Your task to perform on an android device: turn pop-ups off in chrome Image 0: 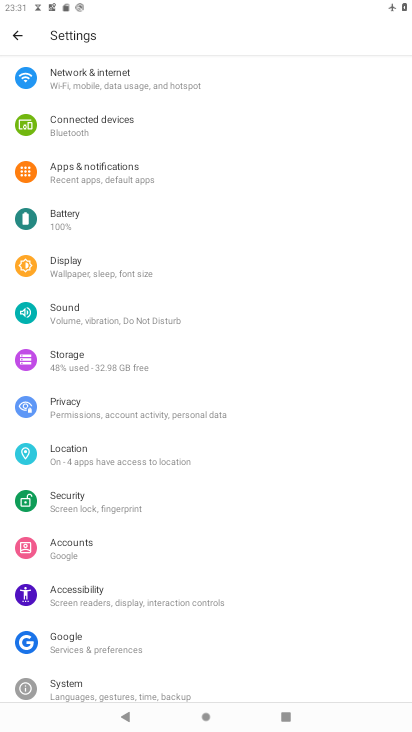
Step 0: press home button
Your task to perform on an android device: turn pop-ups off in chrome Image 1: 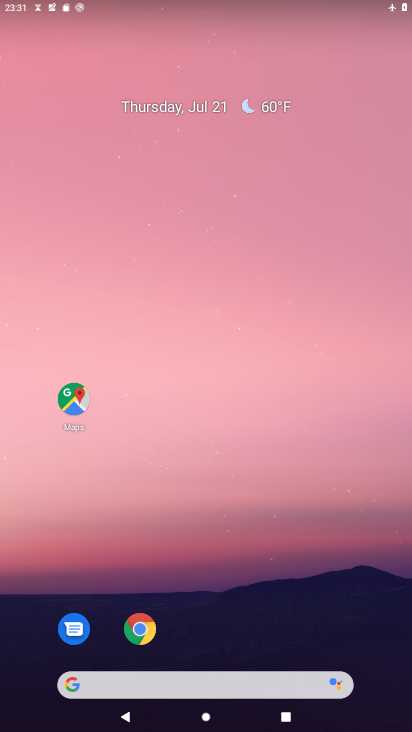
Step 1: drag from (193, 609) to (210, 96)
Your task to perform on an android device: turn pop-ups off in chrome Image 2: 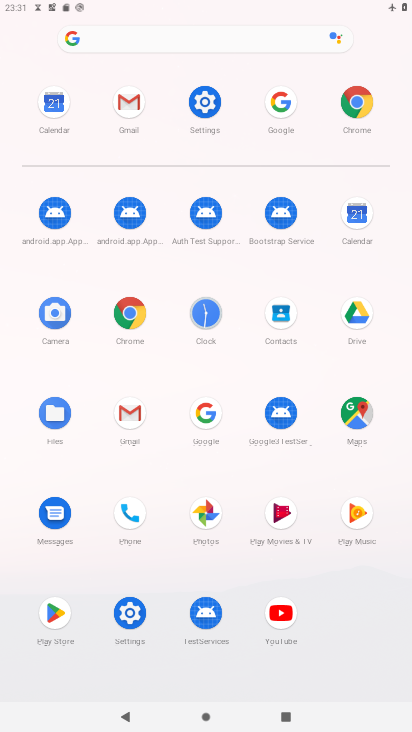
Step 2: click (355, 112)
Your task to perform on an android device: turn pop-ups off in chrome Image 3: 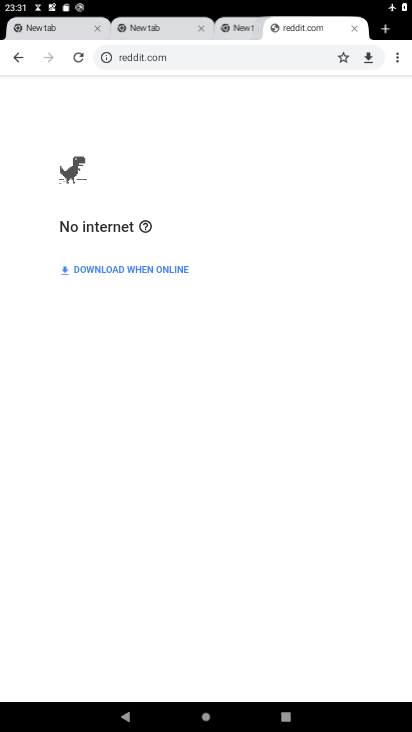
Step 3: click (397, 53)
Your task to perform on an android device: turn pop-ups off in chrome Image 4: 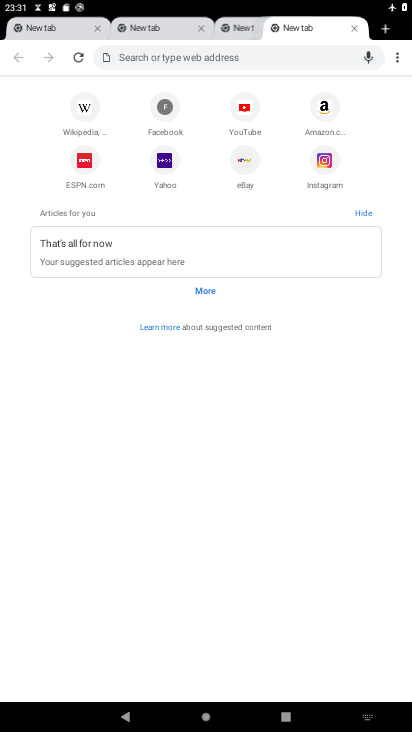
Step 4: click (397, 53)
Your task to perform on an android device: turn pop-ups off in chrome Image 5: 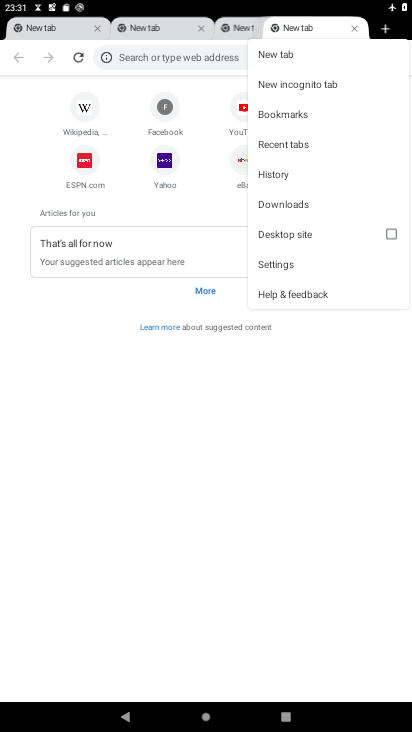
Step 5: click (289, 265)
Your task to perform on an android device: turn pop-ups off in chrome Image 6: 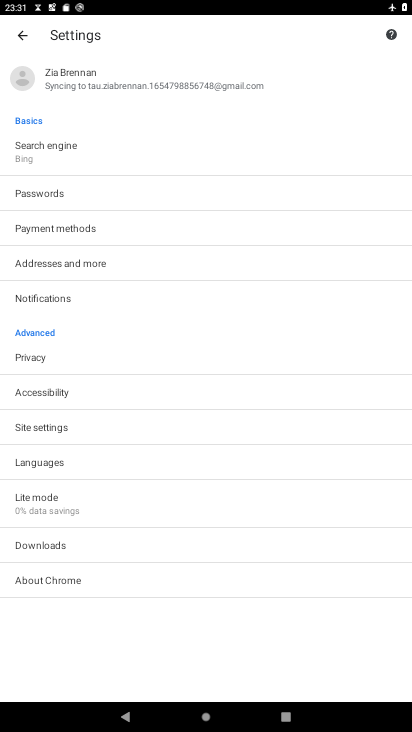
Step 6: click (80, 427)
Your task to perform on an android device: turn pop-ups off in chrome Image 7: 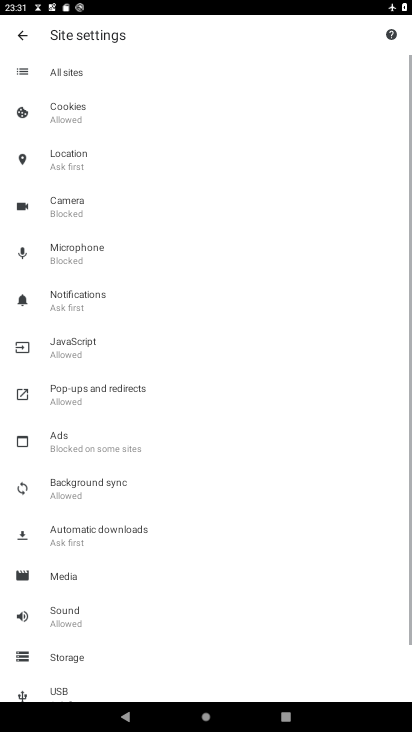
Step 7: click (129, 394)
Your task to perform on an android device: turn pop-ups off in chrome Image 8: 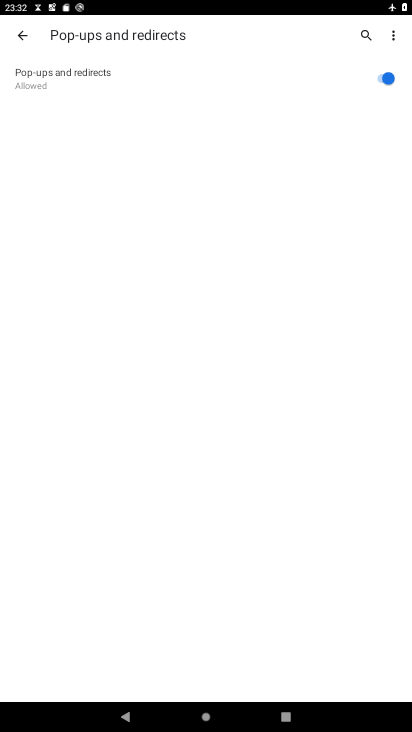
Step 8: click (383, 75)
Your task to perform on an android device: turn pop-ups off in chrome Image 9: 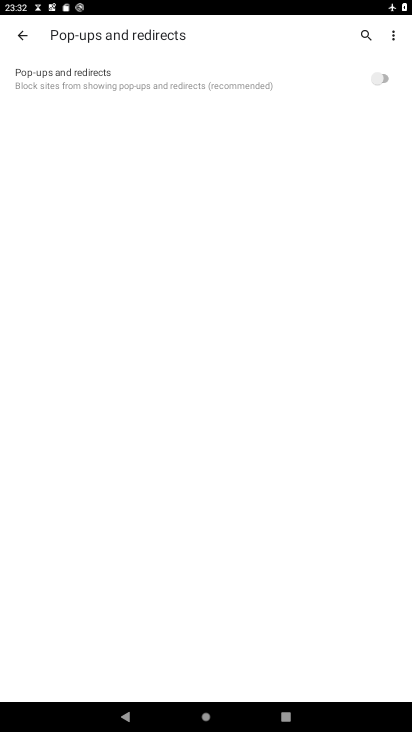
Step 9: task complete